Your task to perform on an android device: check google app version Image 0: 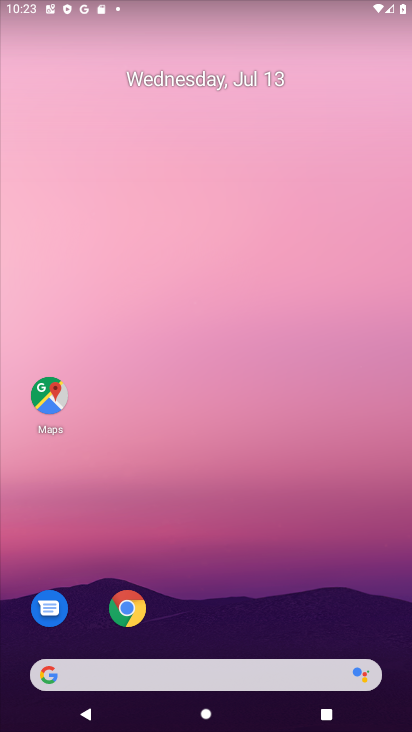
Step 0: drag from (225, 676) to (201, 205)
Your task to perform on an android device: check google app version Image 1: 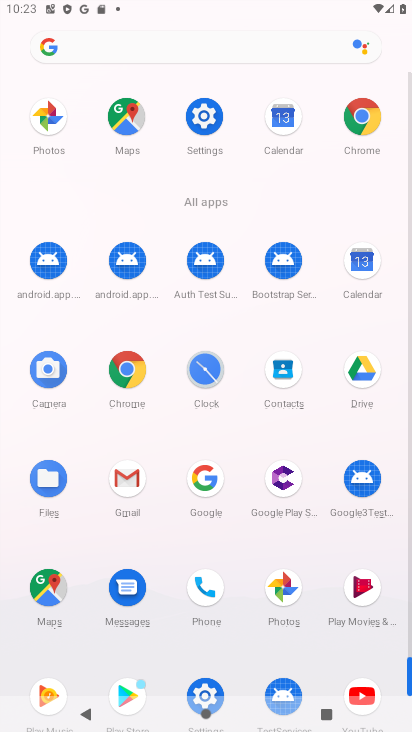
Step 1: click (201, 477)
Your task to perform on an android device: check google app version Image 2: 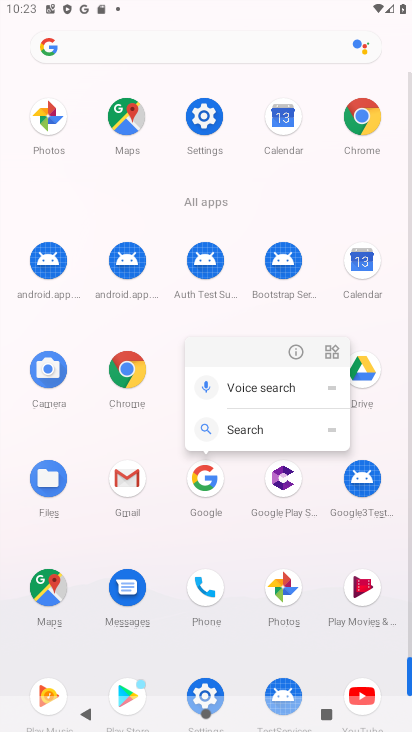
Step 2: click (298, 352)
Your task to perform on an android device: check google app version Image 3: 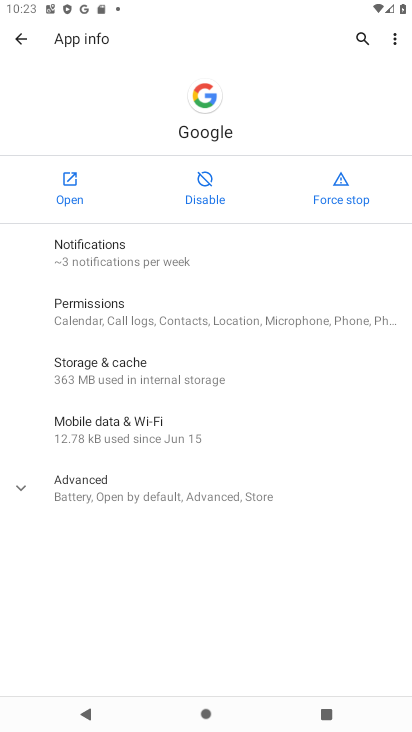
Step 3: click (161, 495)
Your task to perform on an android device: check google app version Image 4: 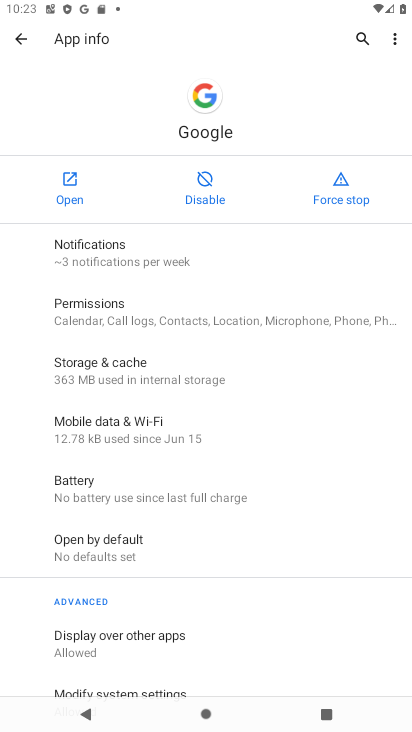
Step 4: task complete